Your task to perform on an android device: toggle pop-ups in chrome Image 0: 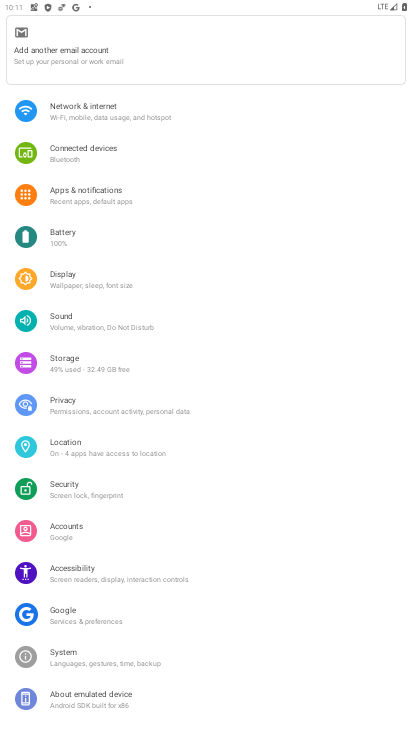
Step 0: press home button
Your task to perform on an android device: toggle pop-ups in chrome Image 1: 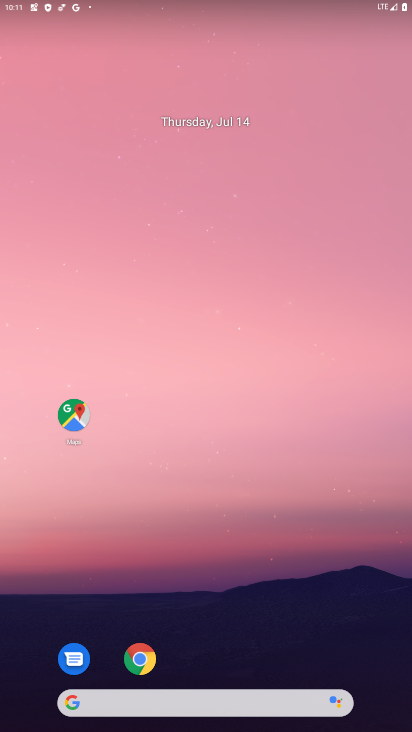
Step 1: click (143, 657)
Your task to perform on an android device: toggle pop-ups in chrome Image 2: 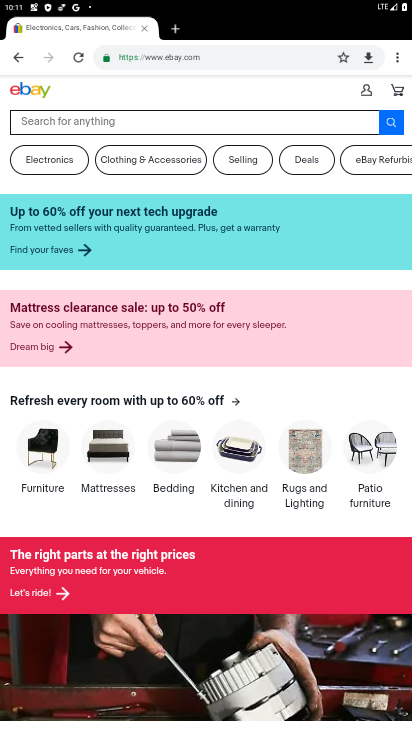
Step 2: drag from (395, 60) to (280, 383)
Your task to perform on an android device: toggle pop-ups in chrome Image 3: 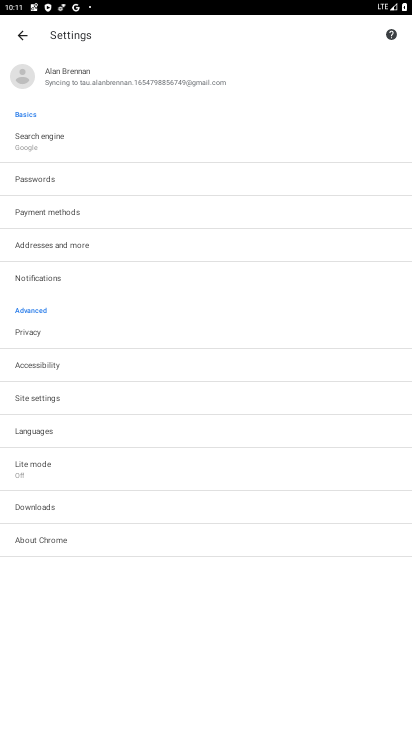
Step 3: click (62, 394)
Your task to perform on an android device: toggle pop-ups in chrome Image 4: 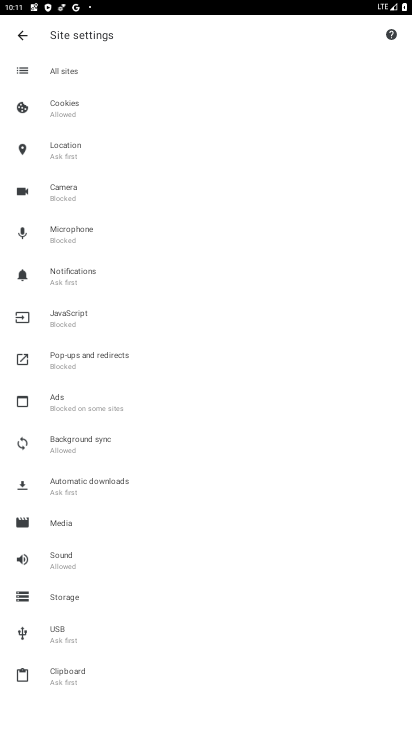
Step 4: click (81, 357)
Your task to perform on an android device: toggle pop-ups in chrome Image 5: 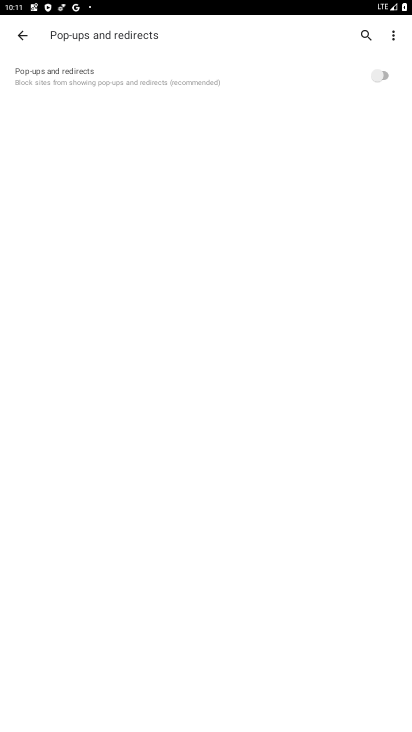
Step 5: click (396, 74)
Your task to perform on an android device: toggle pop-ups in chrome Image 6: 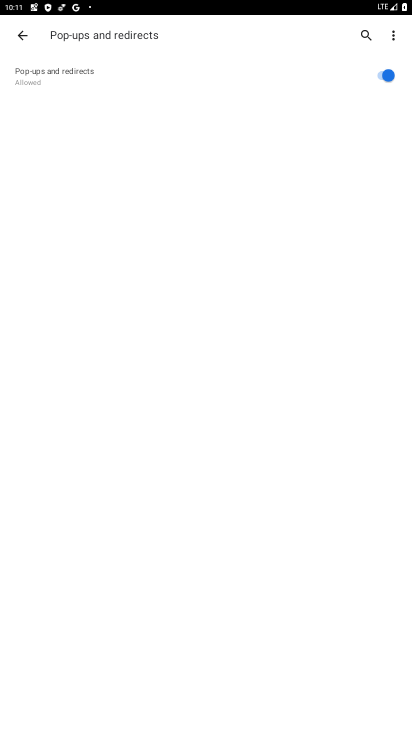
Step 6: task complete